Your task to perform on an android device: add a contact Image 0: 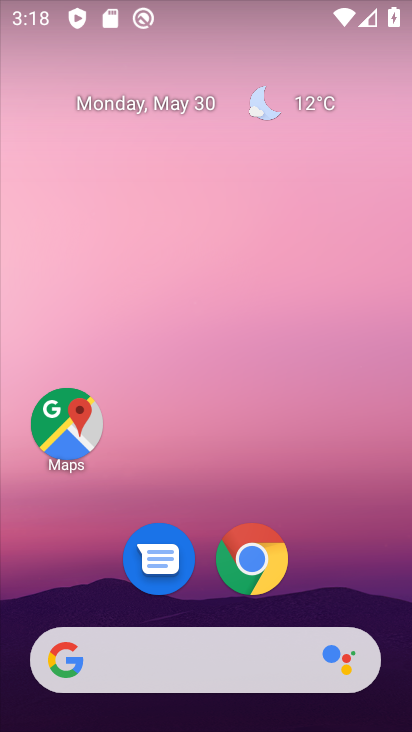
Step 0: drag from (214, 718) to (216, 123)
Your task to perform on an android device: add a contact Image 1: 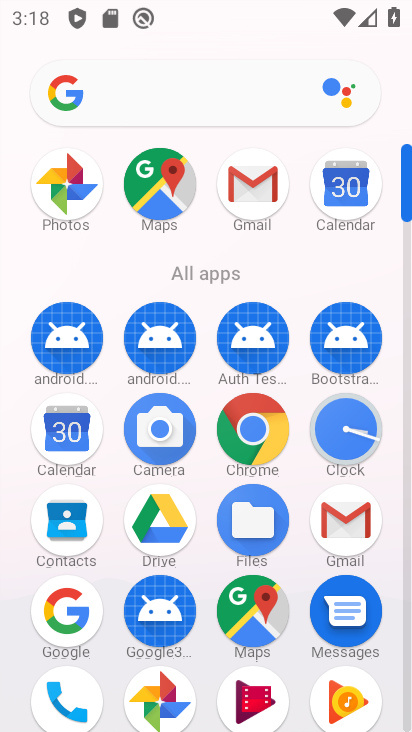
Step 1: click (71, 519)
Your task to perform on an android device: add a contact Image 2: 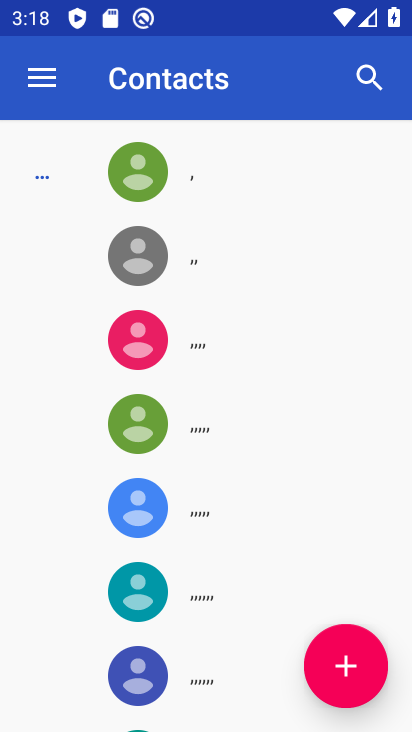
Step 2: click (355, 666)
Your task to perform on an android device: add a contact Image 3: 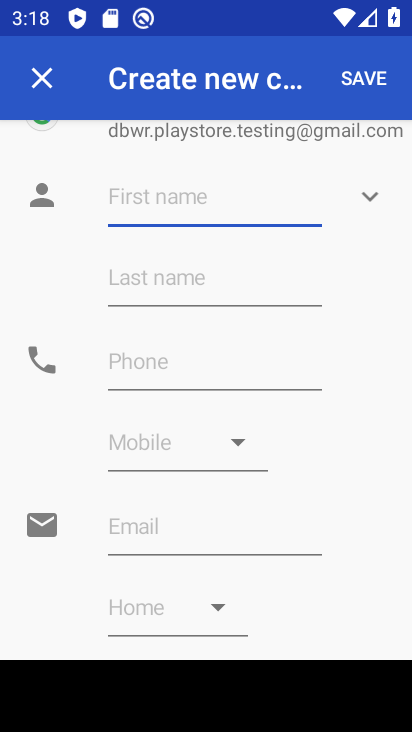
Step 3: type "sandesham"
Your task to perform on an android device: add a contact Image 4: 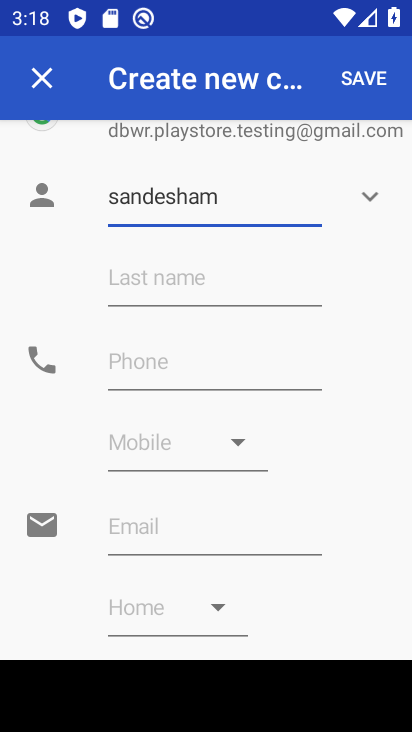
Step 4: click (174, 365)
Your task to perform on an android device: add a contact Image 5: 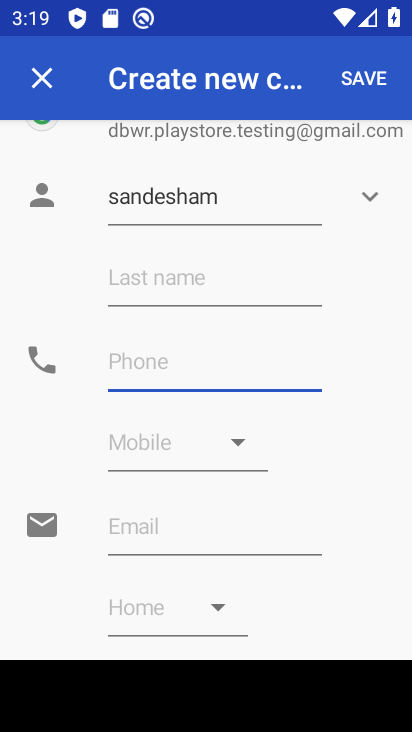
Step 5: type "5443"
Your task to perform on an android device: add a contact Image 6: 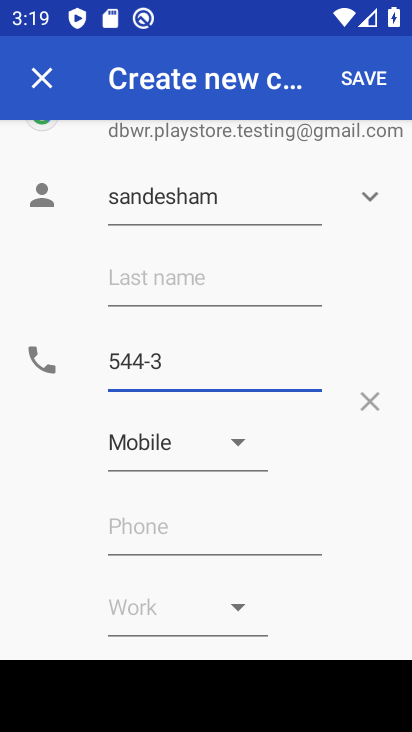
Step 6: type ""
Your task to perform on an android device: add a contact Image 7: 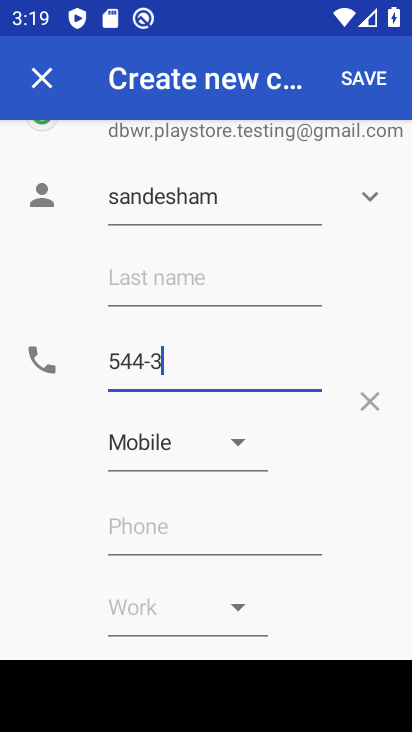
Step 7: click (357, 79)
Your task to perform on an android device: add a contact Image 8: 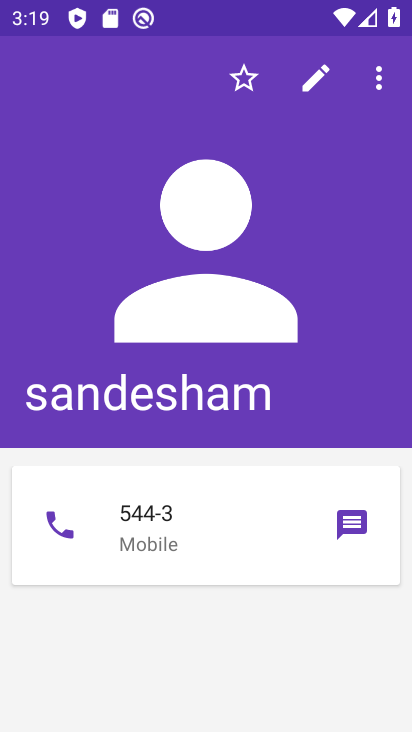
Step 8: task complete